Your task to perform on an android device: Go to Amazon Image 0: 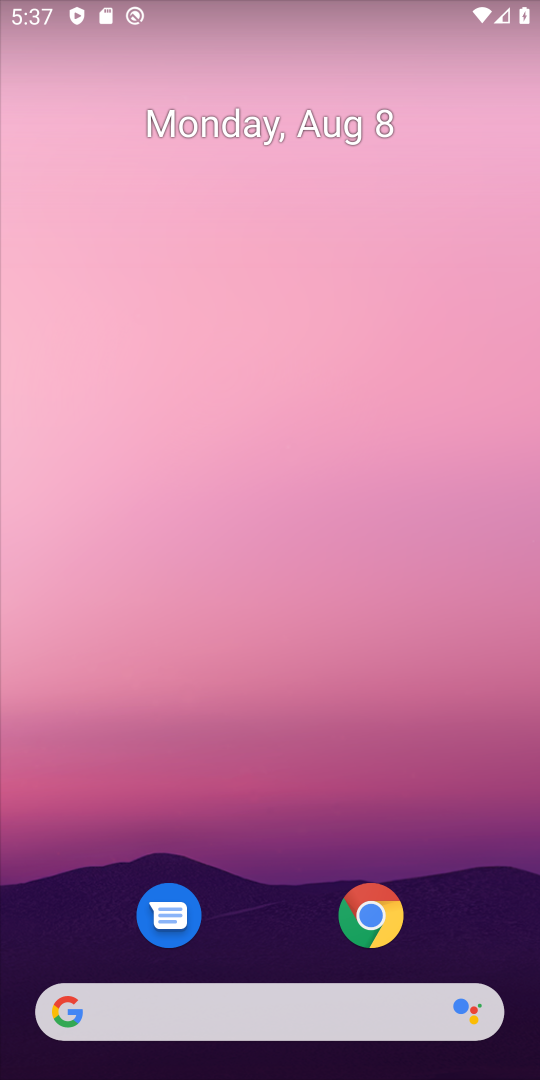
Step 0: click (374, 918)
Your task to perform on an android device: Go to Amazon Image 1: 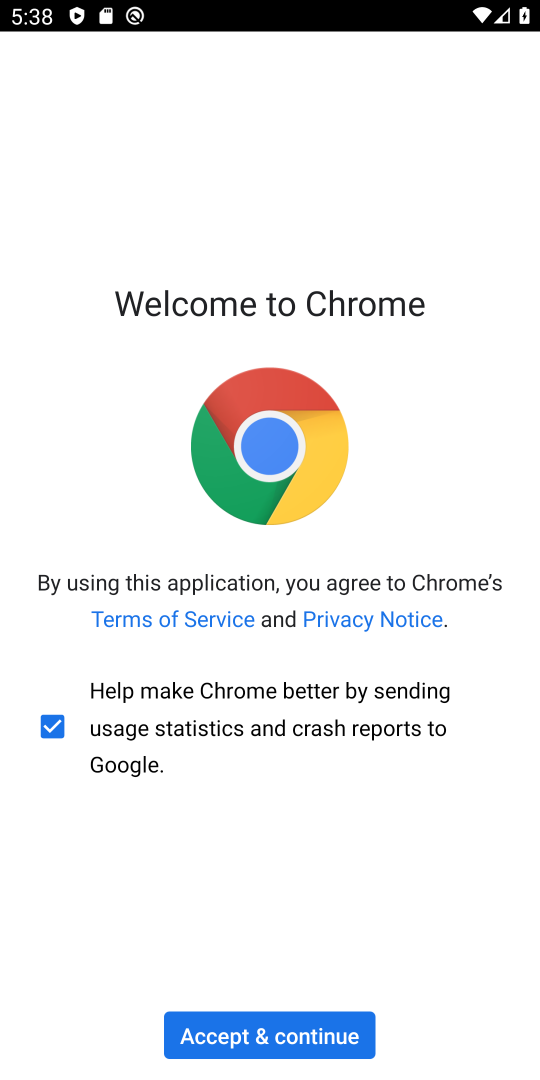
Step 1: click (276, 1031)
Your task to perform on an android device: Go to Amazon Image 2: 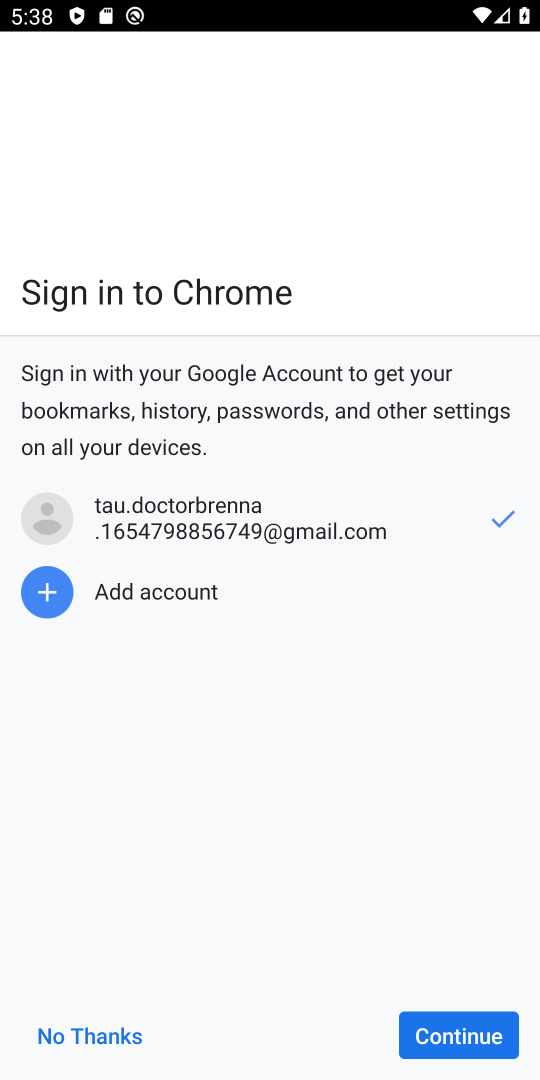
Step 2: click (463, 1030)
Your task to perform on an android device: Go to Amazon Image 3: 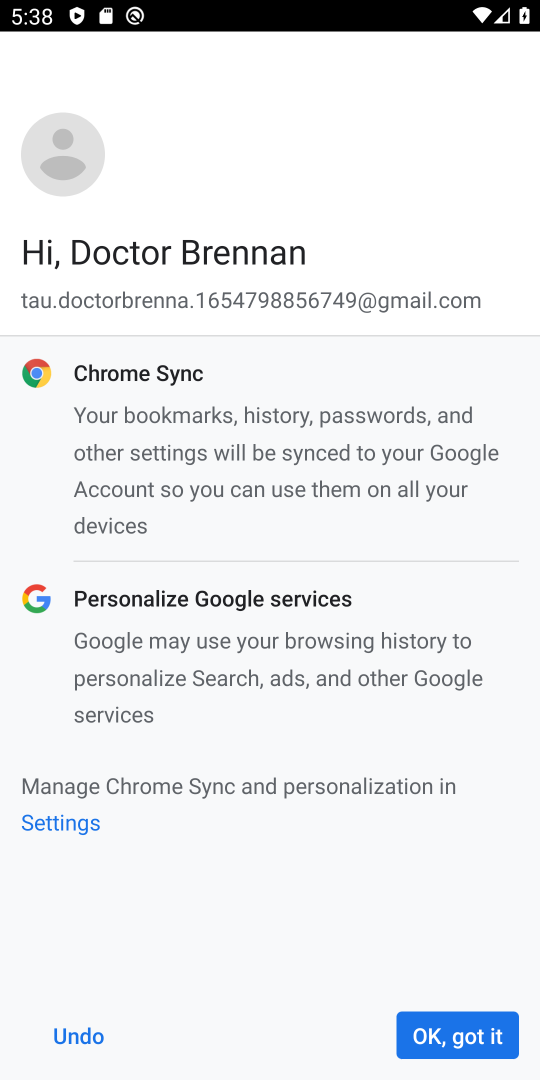
Step 3: click (444, 1033)
Your task to perform on an android device: Go to Amazon Image 4: 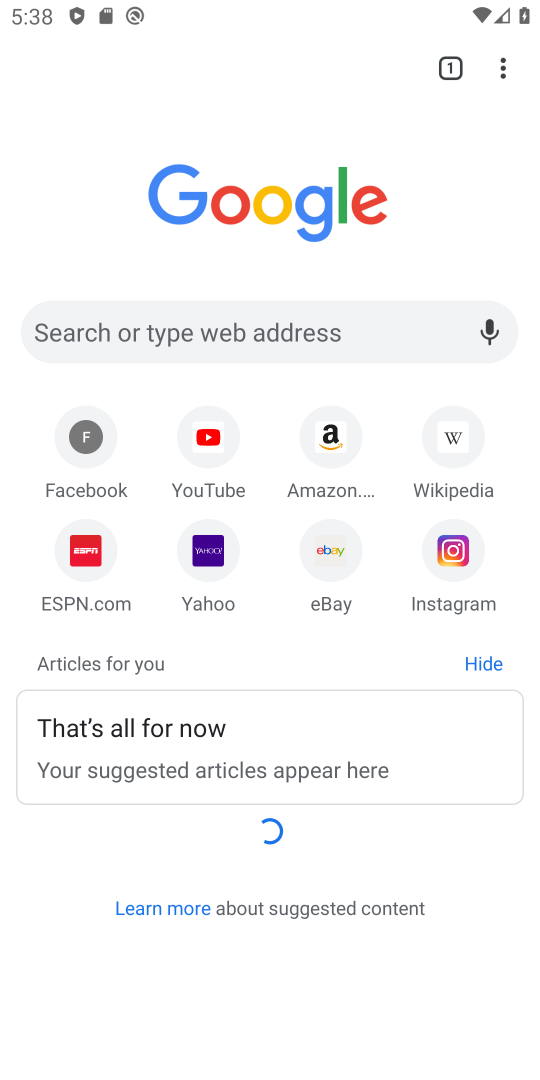
Step 4: click (332, 431)
Your task to perform on an android device: Go to Amazon Image 5: 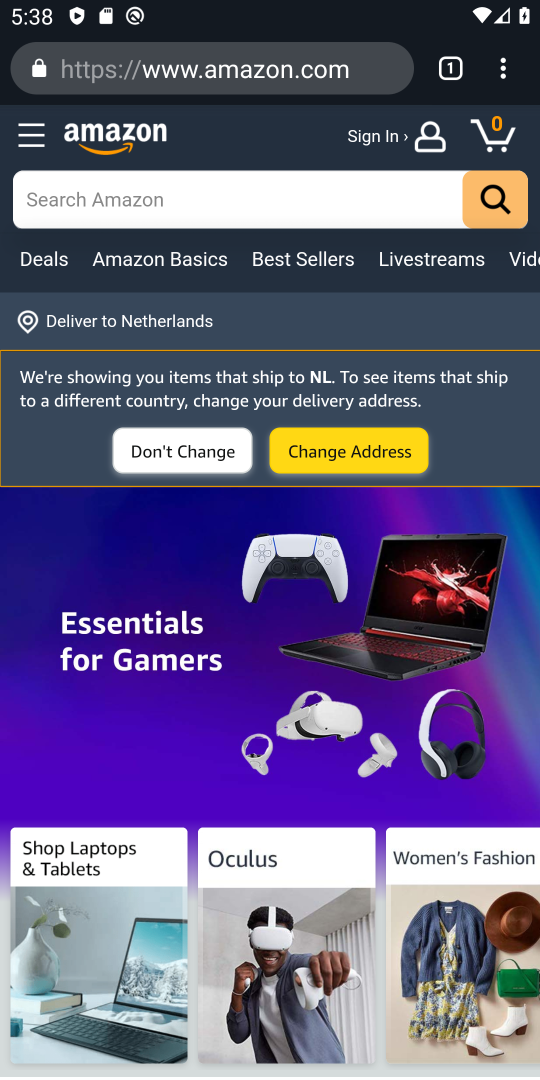
Step 5: task complete